Your task to perform on an android device: Do I have any events today? Image 0: 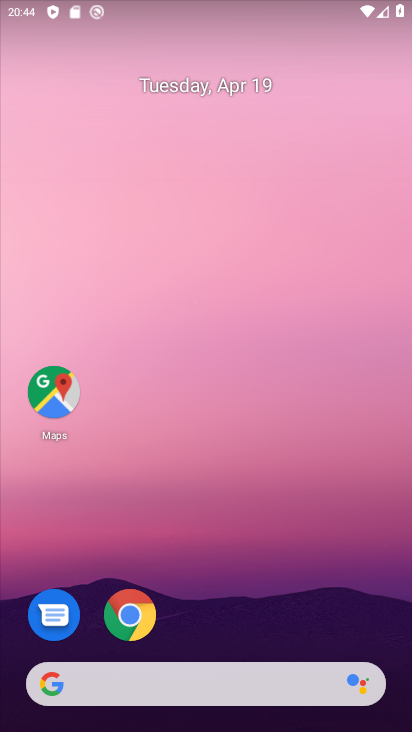
Step 0: drag from (186, 658) to (251, 246)
Your task to perform on an android device: Do I have any events today? Image 1: 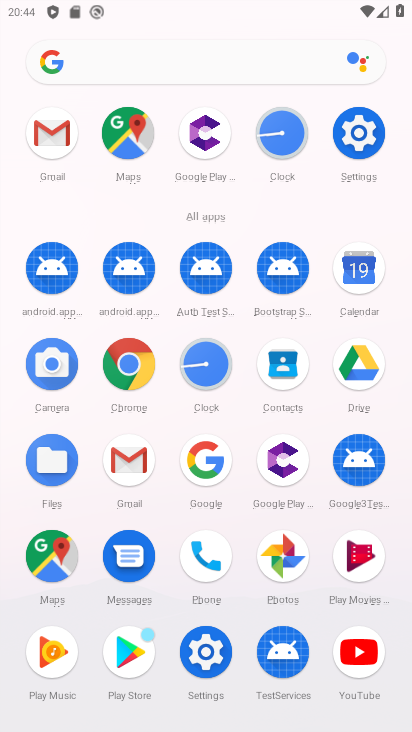
Step 1: click (365, 265)
Your task to perform on an android device: Do I have any events today? Image 2: 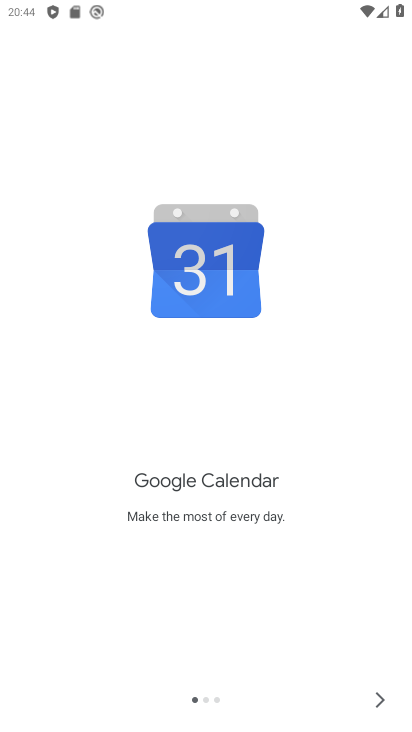
Step 2: click (379, 702)
Your task to perform on an android device: Do I have any events today? Image 3: 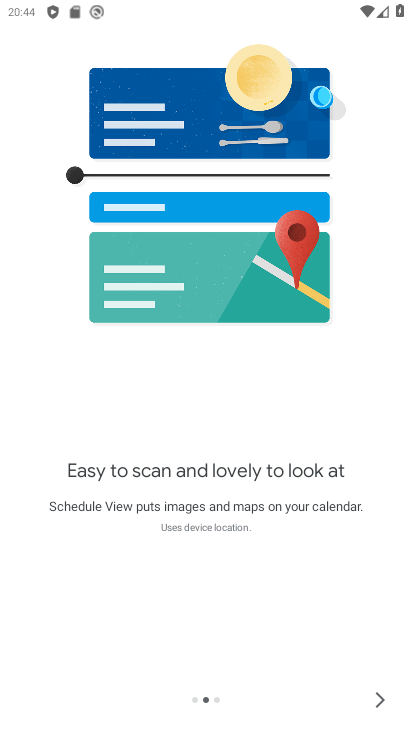
Step 3: click (379, 702)
Your task to perform on an android device: Do I have any events today? Image 4: 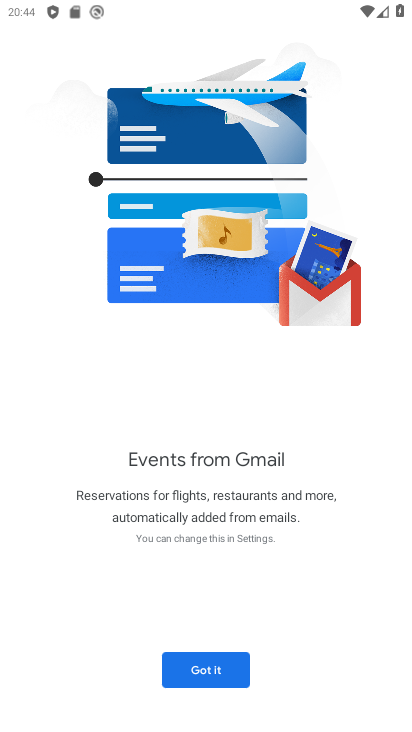
Step 4: click (238, 668)
Your task to perform on an android device: Do I have any events today? Image 5: 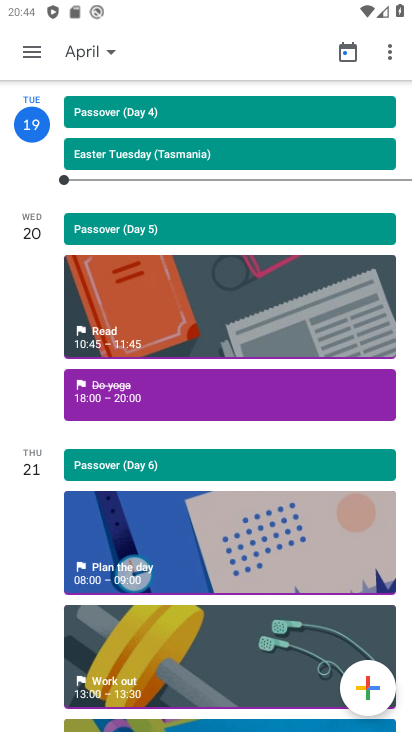
Step 5: click (97, 49)
Your task to perform on an android device: Do I have any events today? Image 6: 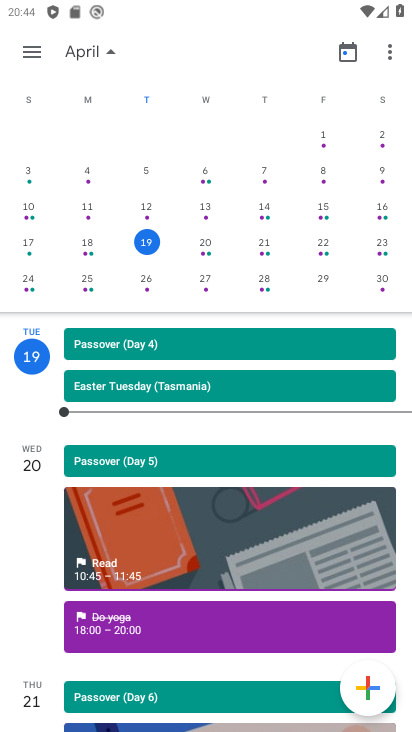
Step 6: task complete